Your task to perform on an android device: Go to accessibility settings Image 0: 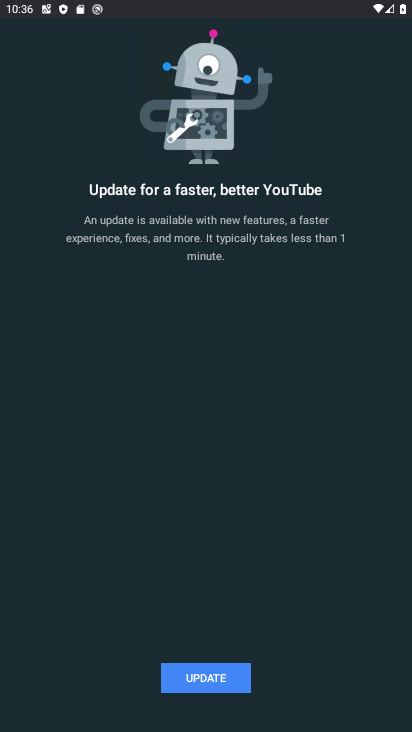
Step 0: press home button
Your task to perform on an android device: Go to accessibility settings Image 1: 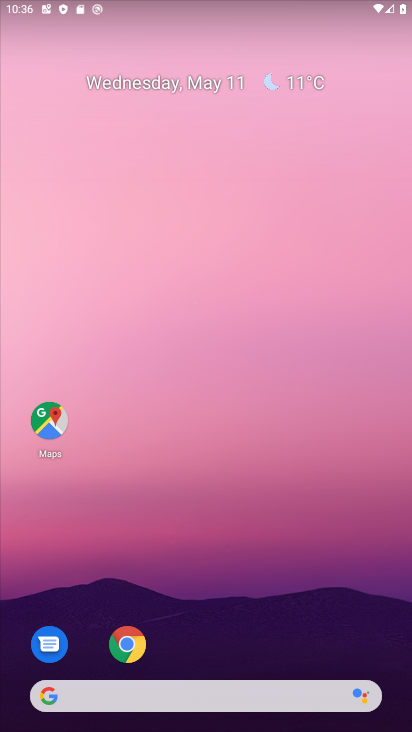
Step 1: drag from (293, 667) to (139, 8)
Your task to perform on an android device: Go to accessibility settings Image 2: 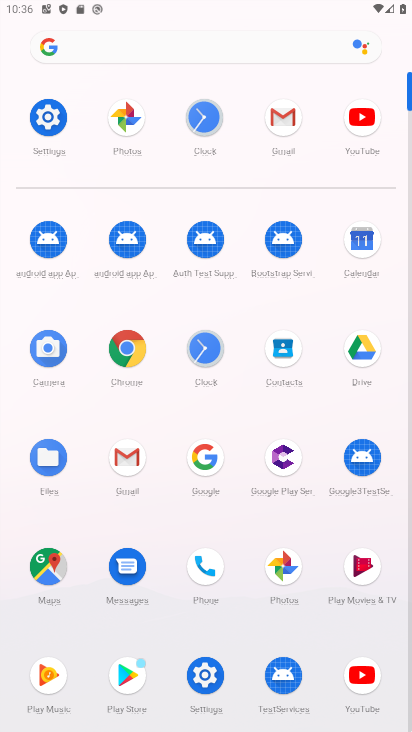
Step 2: click (45, 115)
Your task to perform on an android device: Go to accessibility settings Image 3: 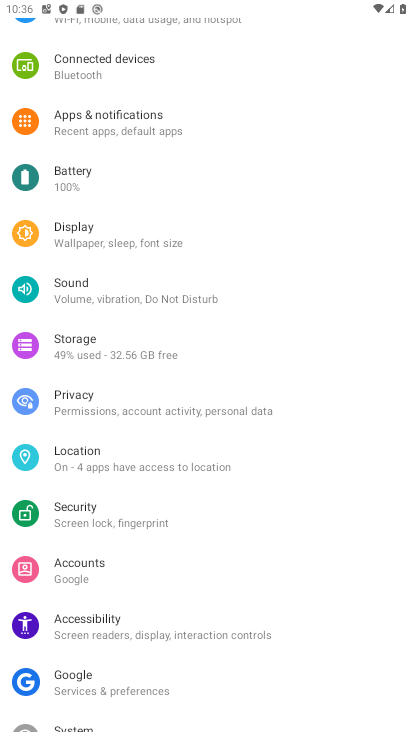
Step 3: click (72, 630)
Your task to perform on an android device: Go to accessibility settings Image 4: 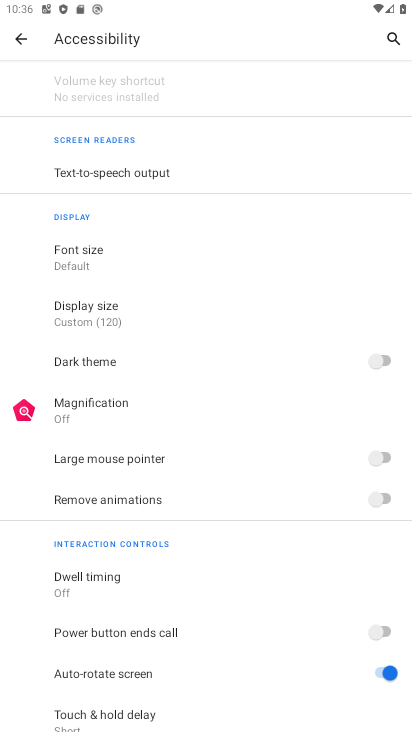
Step 4: task complete